Your task to perform on an android device: Search for sushi restaurants on Maps Image 0: 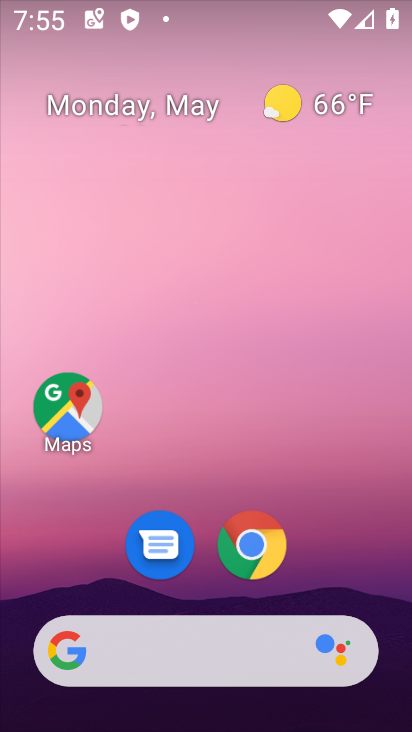
Step 0: click (57, 414)
Your task to perform on an android device: Search for sushi restaurants on Maps Image 1: 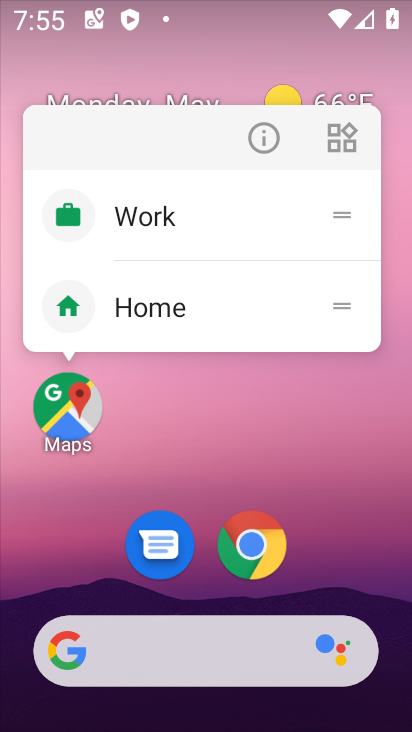
Step 1: click (57, 414)
Your task to perform on an android device: Search for sushi restaurants on Maps Image 2: 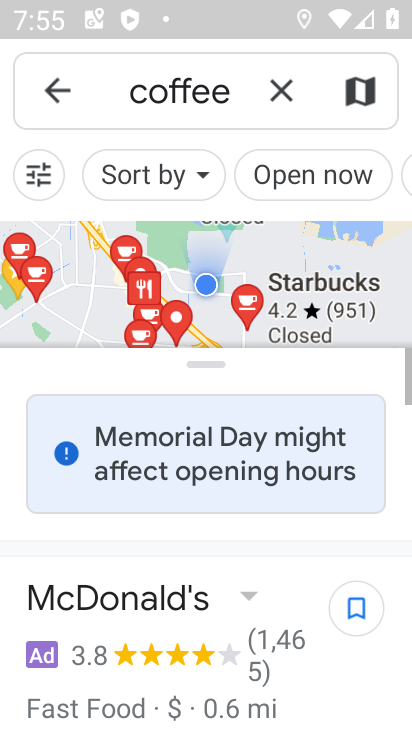
Step 2: click (291, 90)
Your task to perform on an android device: Search for sushi restaurants on Maps Image 3: 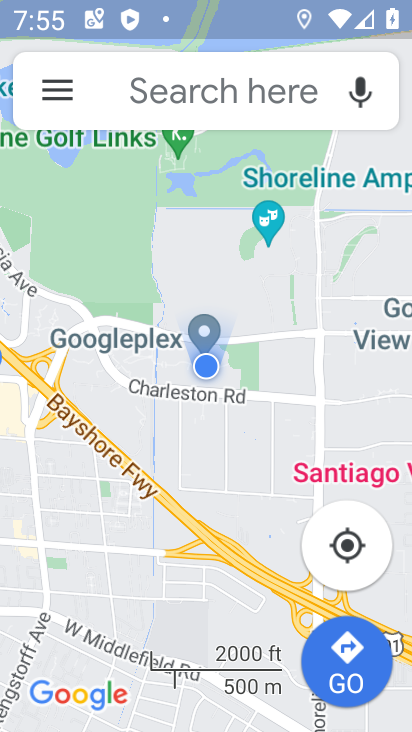
Step 3: click (192, 97)
Your task to perform on an android device: Search for sushi restaurants on Maps Image 4: 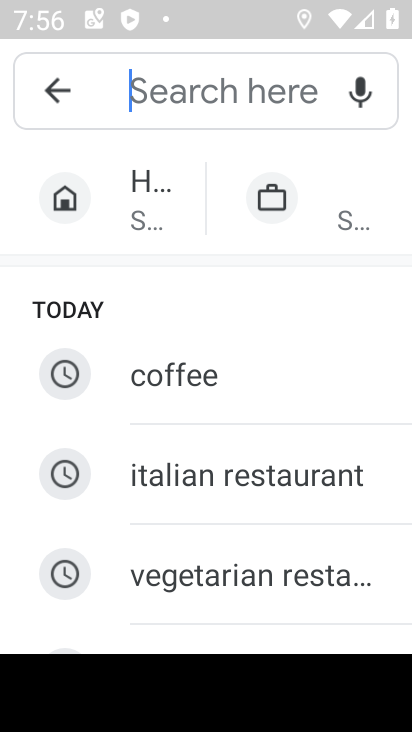
Step 4: type "sushi restaurants"
Your task to perform on an android device: Search for sushi restaurants on Maps Image 5: 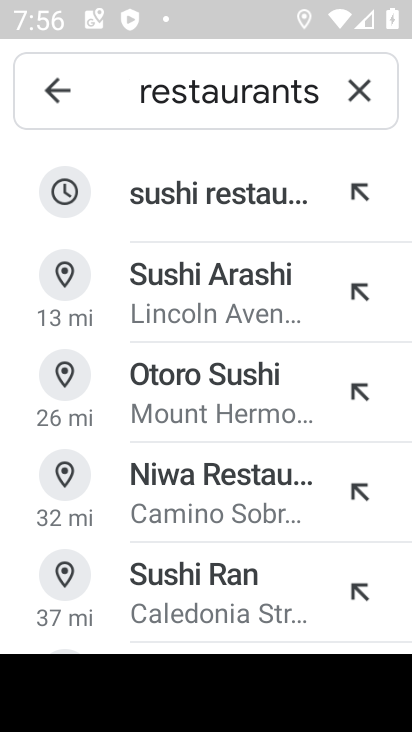
Step 5: click (198, 214)
Your task to perform on an android device: Search for sushi restaurants on Maps Image 6: 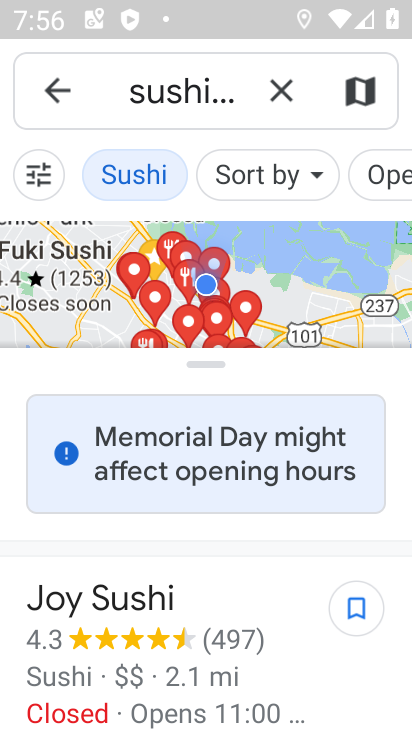
Step 6: task complete